Your task to perform on an android device: open a bookmark in the chrome app Image 0: 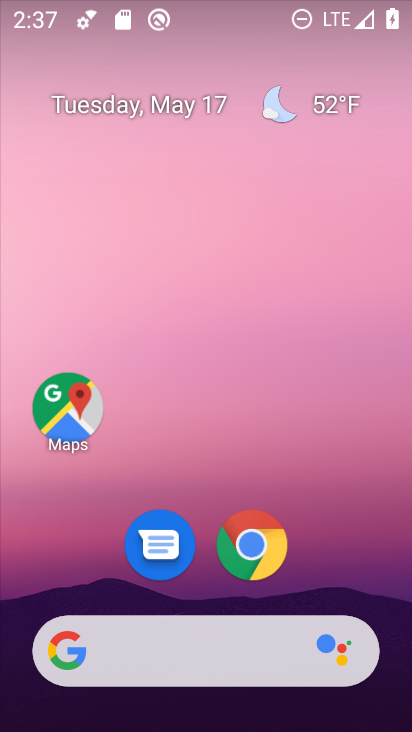
Step 0: drag from (374, 580) to (370, 276)
Your task to perform on an android device: open a bookmark in the chrome app Image 1: 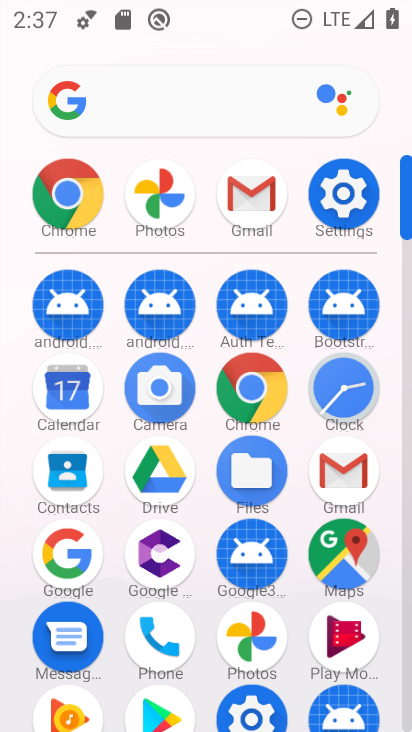
Step 1: click (255, 403)
Your task to perform on an android device: open a bookmark in the chrome app Image 2: 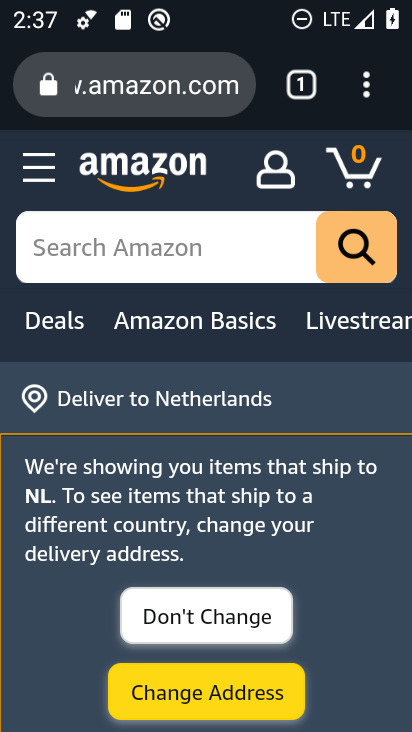
Step 2: click (369, 92)
Your task to perform on an android device: open a bookmark in the chrome app Image 3: 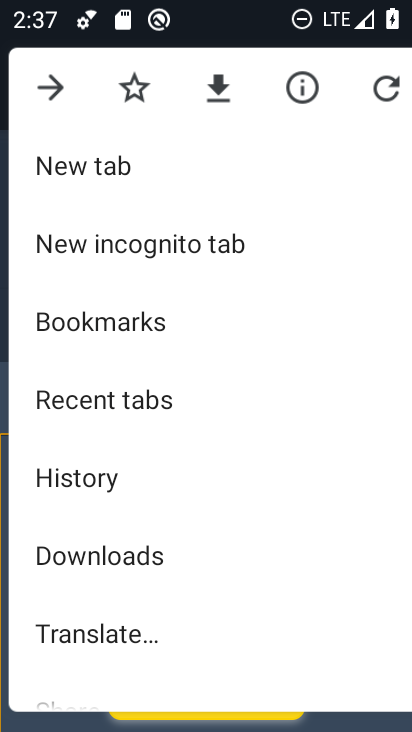
Step 3: drag from (303, 550) to (316, 413)
Your task to perform on an android device: open a bookmark in the chrome app Image 4: 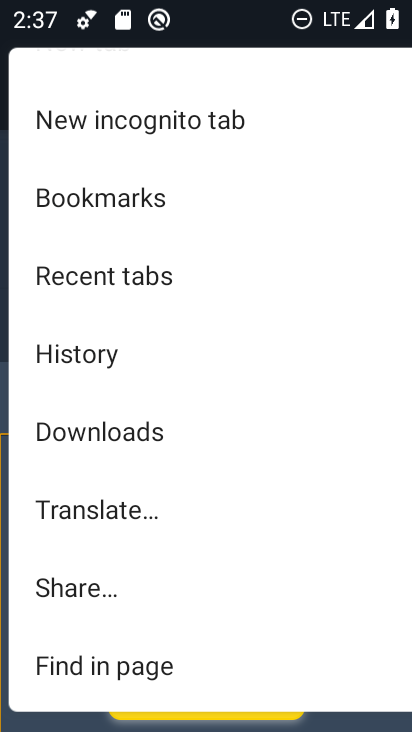
Step 4: drag from (314, 591) to (318, 400)
Your task to perform on an android device: open a bookmark in the chrome app Image 5: 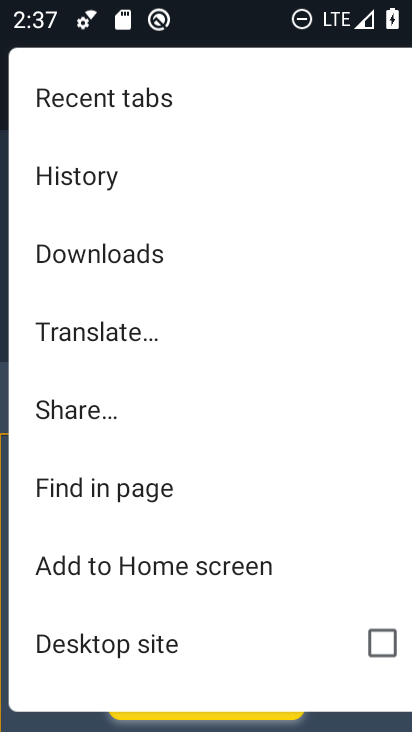
Step 5: drag from (321, 563) to (318, 427)
Your task to perform on an android device: open a bookmark in the chrome app Image 6: 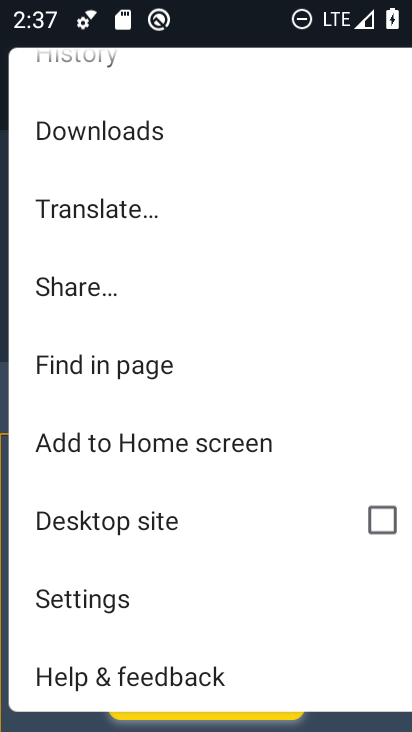
Step 6: drag from (330, 285) to (312, 478)
Your task to perform on an android device: open a bookmark in the chrome app Image 7: 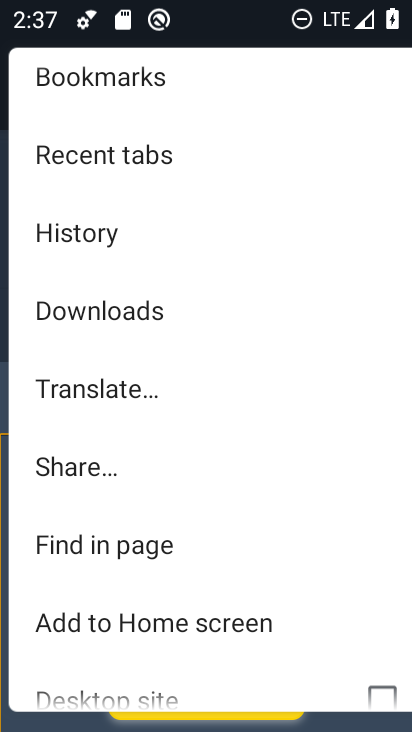
Step 7: drag from (276, 225) to (271, 395)
Your task to perform on an android device: open a bookmark in the chrome app Image 8: 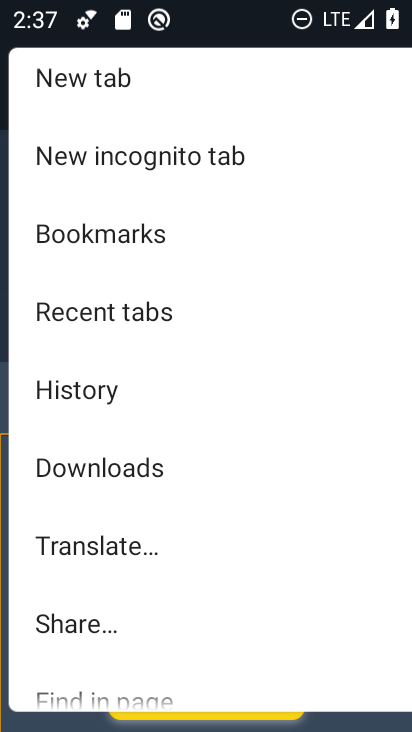
Step 8: click (155, 241)
Your task to perform on an android device: open a bookmark in the chrome app Image 9: 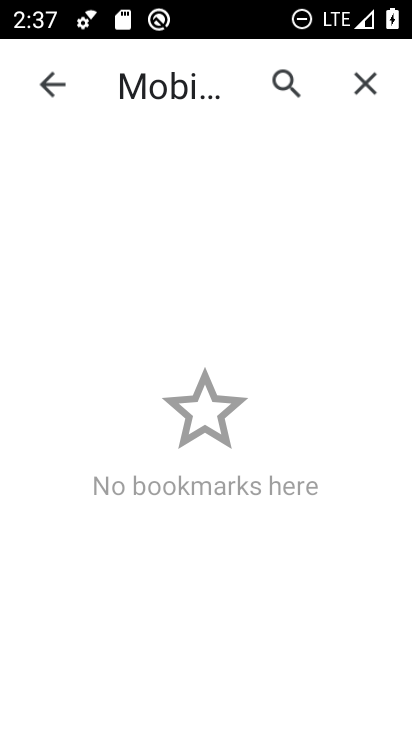
Step 9: task complete